Your task to perform on an android device: How much does a3 bedroom apartment rent for in Portland? Image 0: 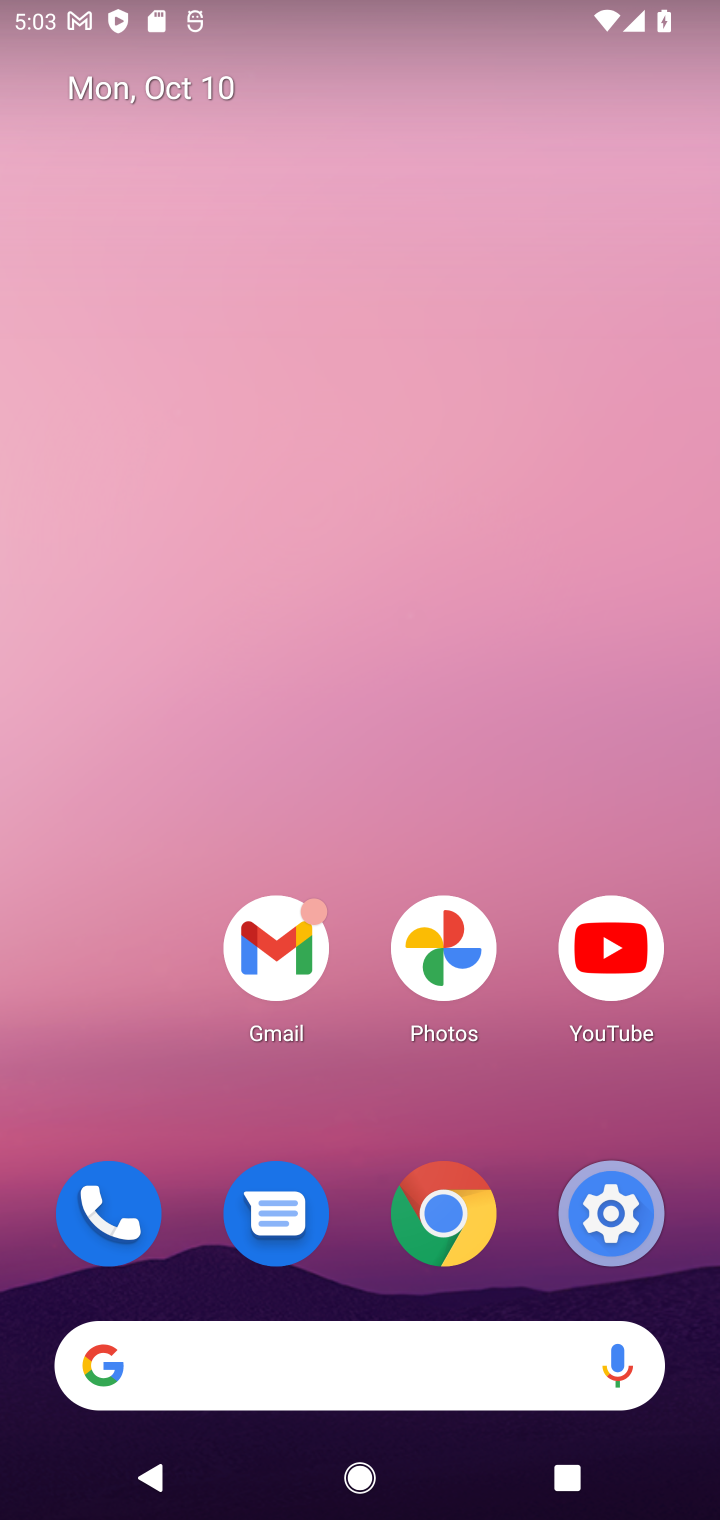
Step 0: drag from (291, 1049) to (488, 8)
Your task to perform on an android device: How much does a3 bedroom apartment rent for in Portland? Image 1: 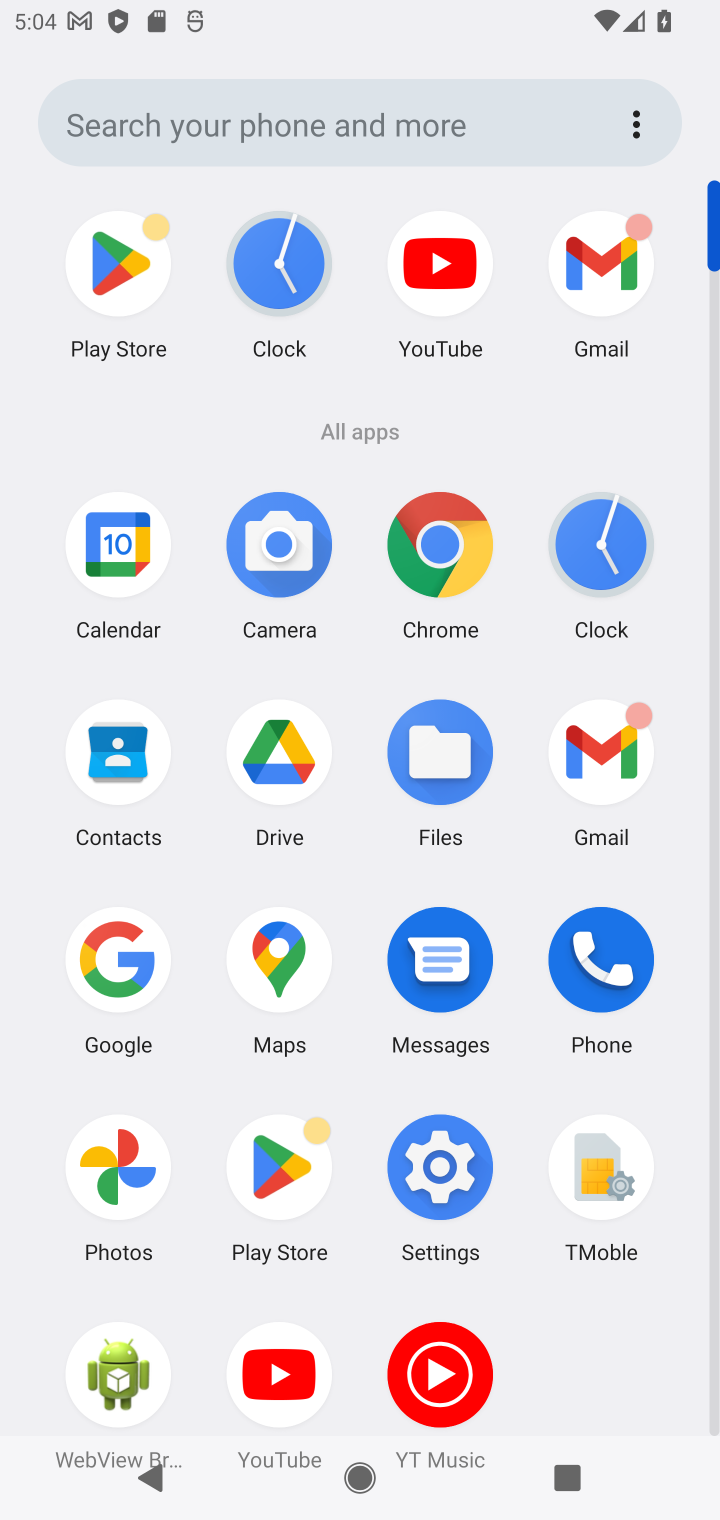
Step 1: click (101, 956)
Your task to perform on an android device: How much does a3 bedroom apartment rent for in Portland? Image 2: 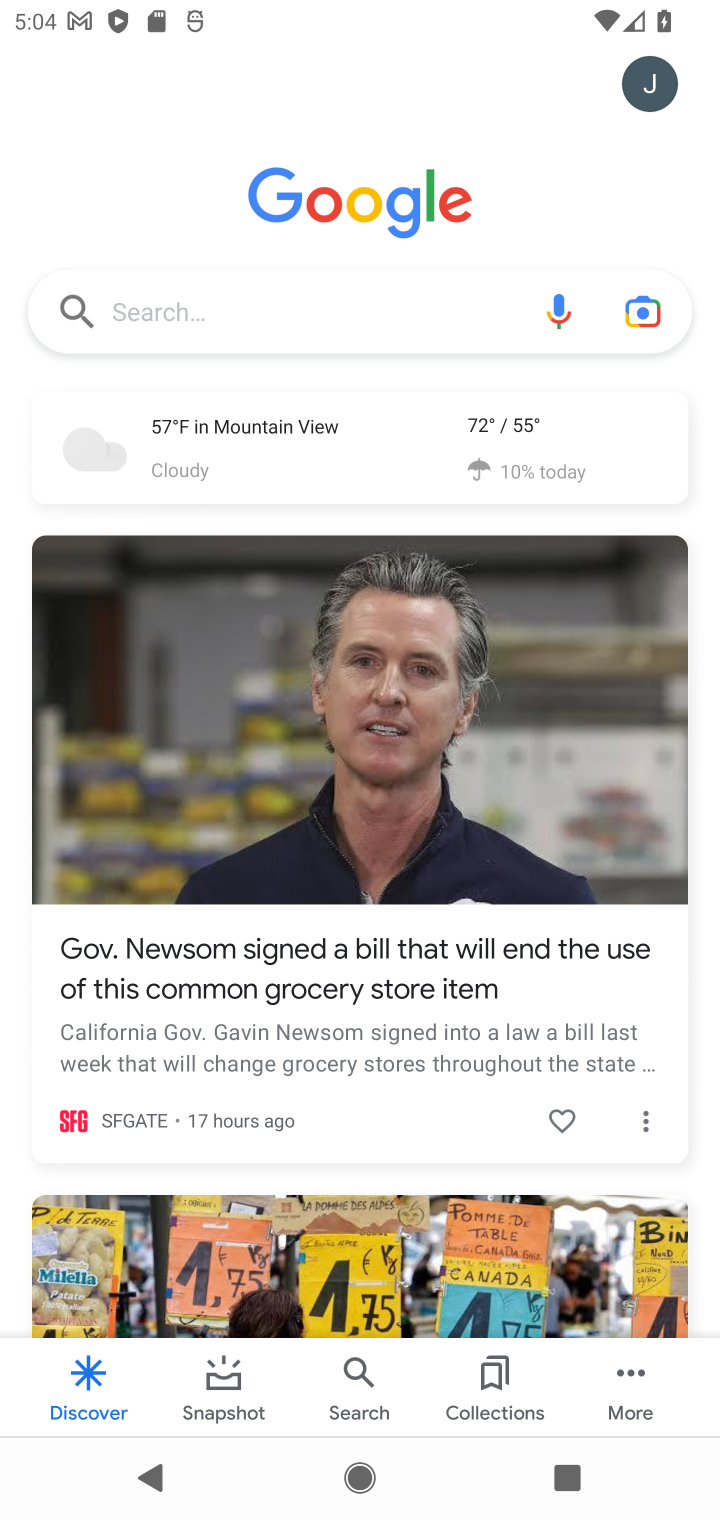
Step 2: click (303, 270)
Your task to perform on an android device: How much does a3 bedroom apartment rent for in Portland? Image 3: 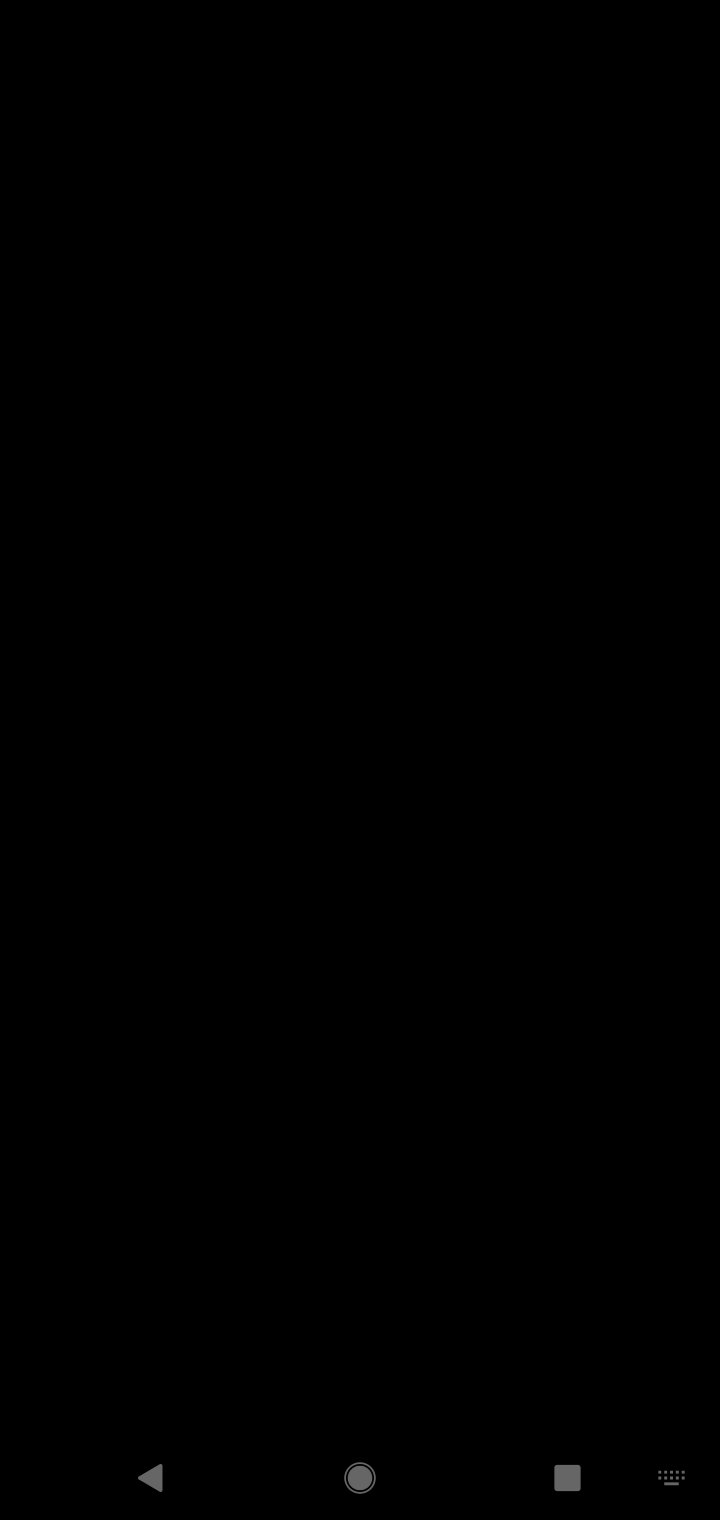
Step 3: type "How much does a3 bedroom apartment rent for in Portland?"
Your task to perform on an android device: How much does a3 bedroom apartment rent for in Portland? Image 4: 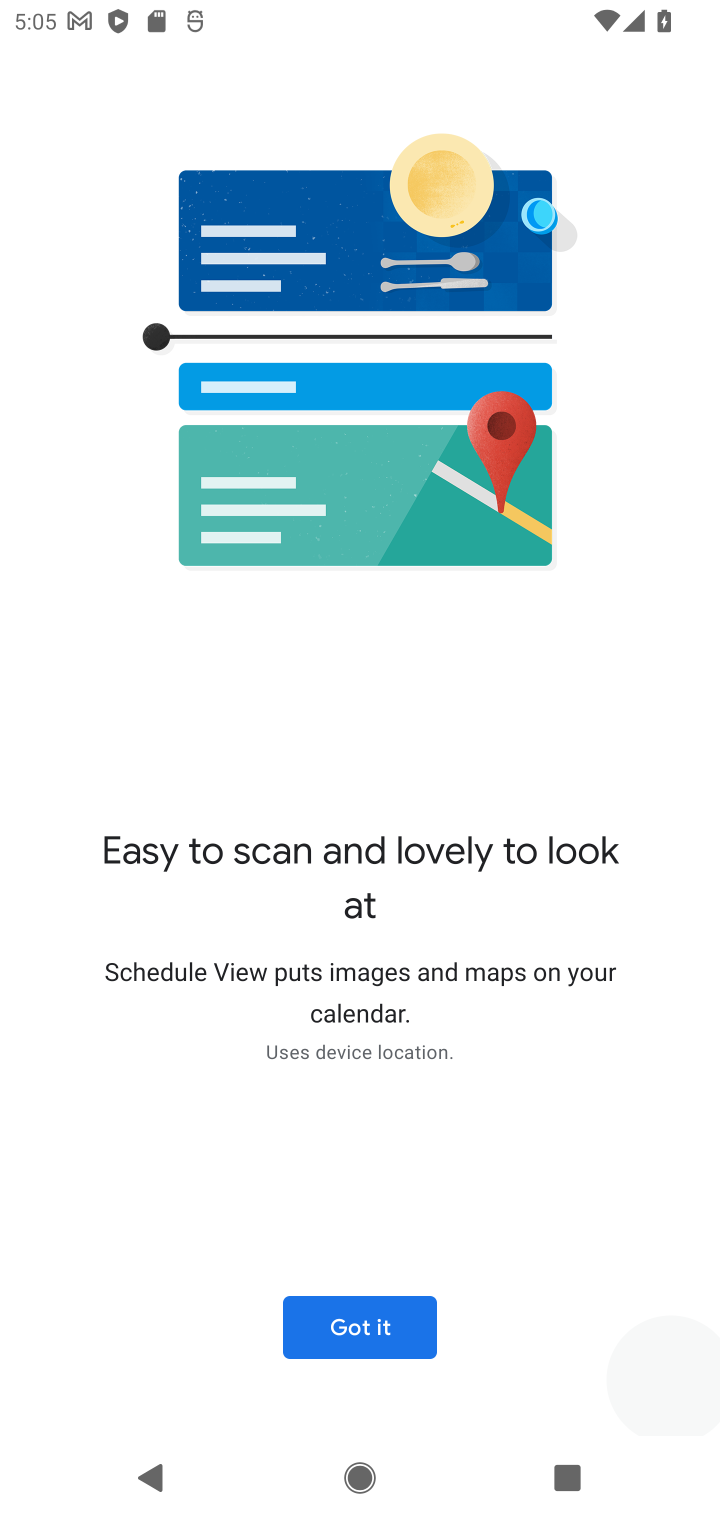
Step 4: click (302, 1380)
Your task to perform on an android device: How much does a3 bedroom apartment rent for in Portland? Image 5: 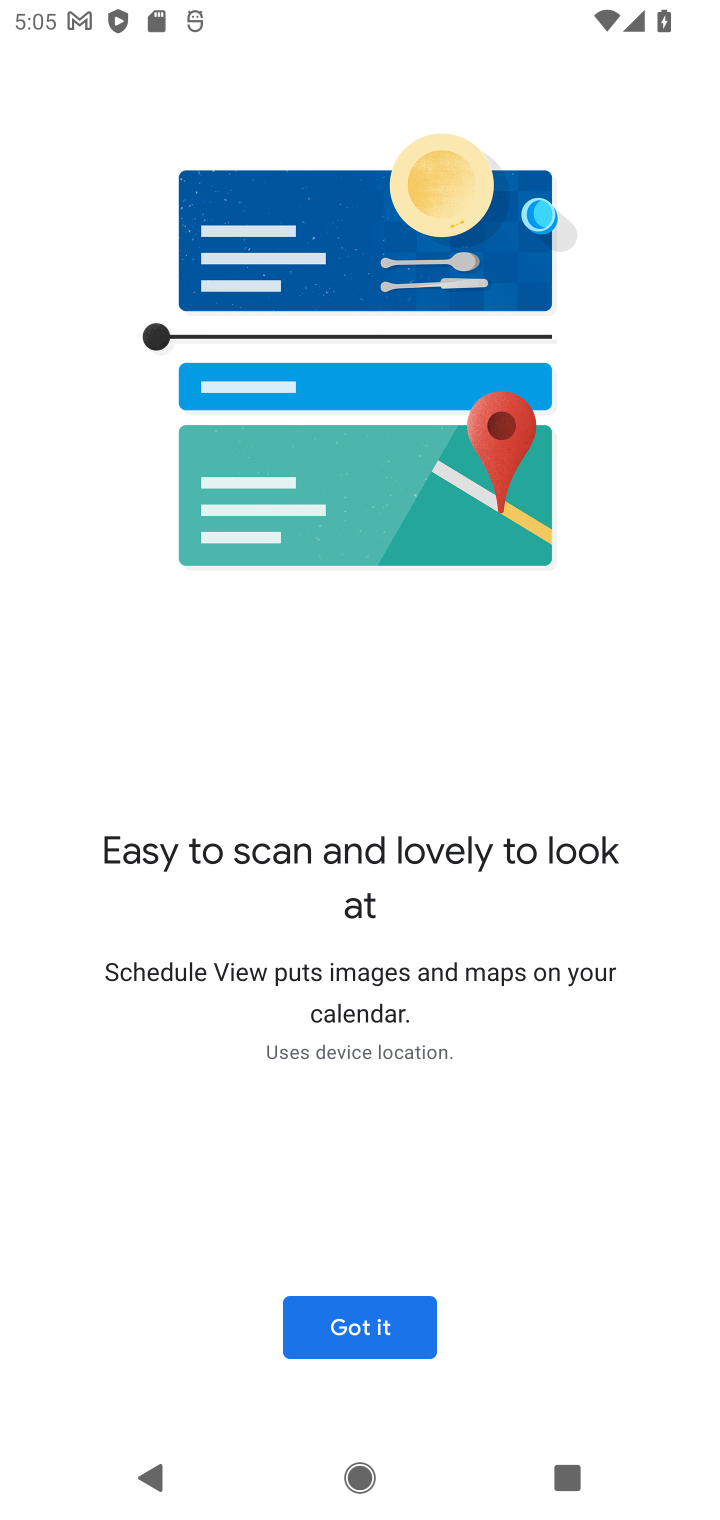
Step 5: click (380, 1309)
Your task to perform on an android device: How much does a3 bedroom apartment rent for in Portland? Image 6: 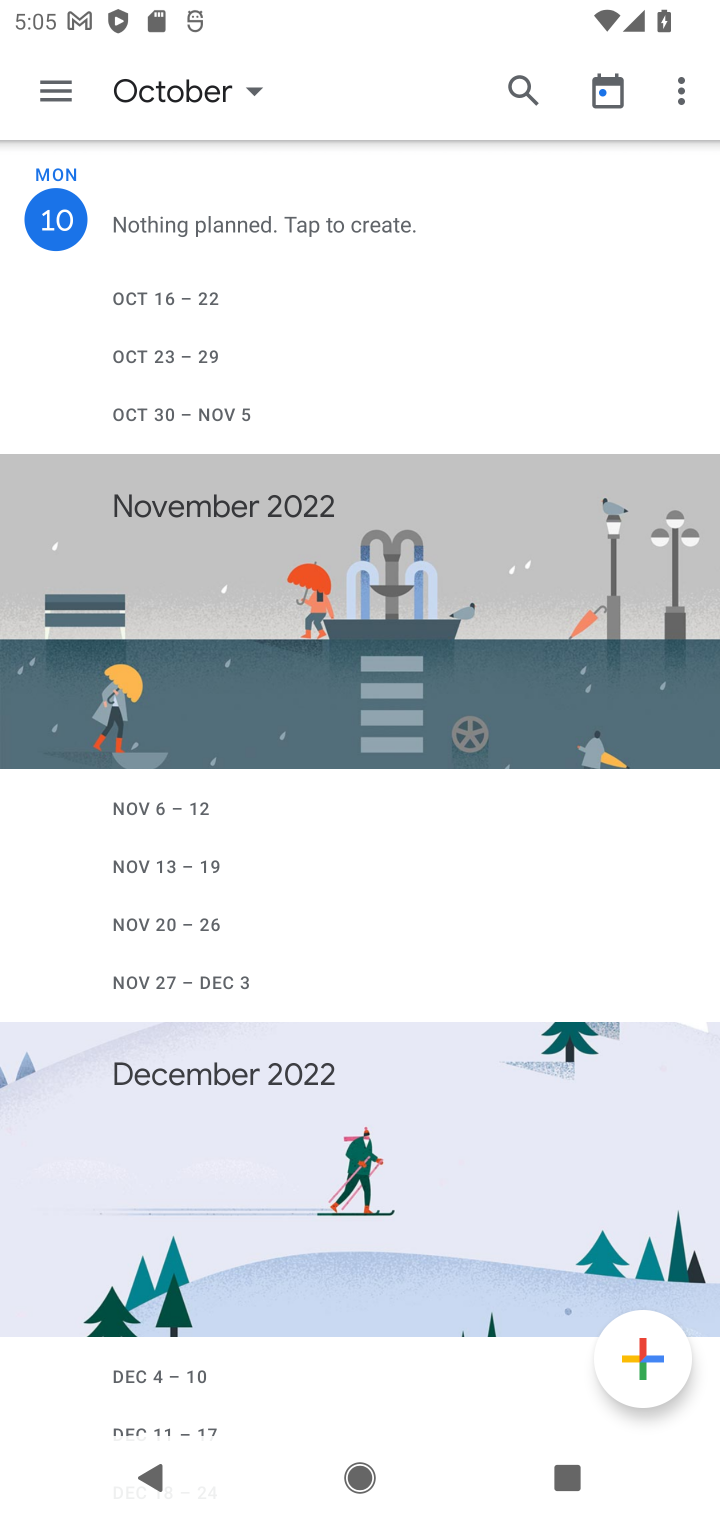
Step 6: press home button
Your task to perform on an android device: How much does a3 bedroom apartment rent for in Portland? Image 7: 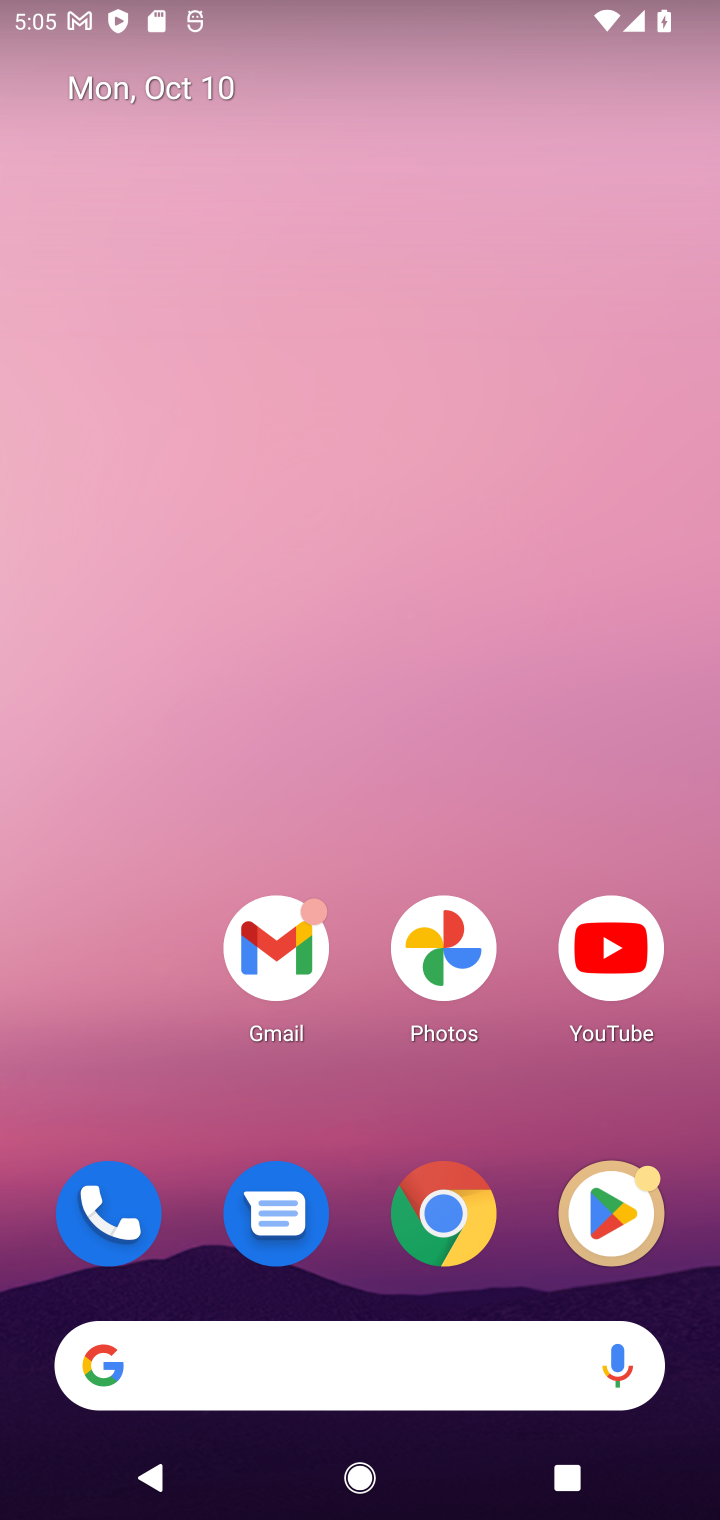
Step 7: click (597, 1243)
Your task to perform on an android device: How much does a3 bedroom apartment rent for in Portland? Image 8: 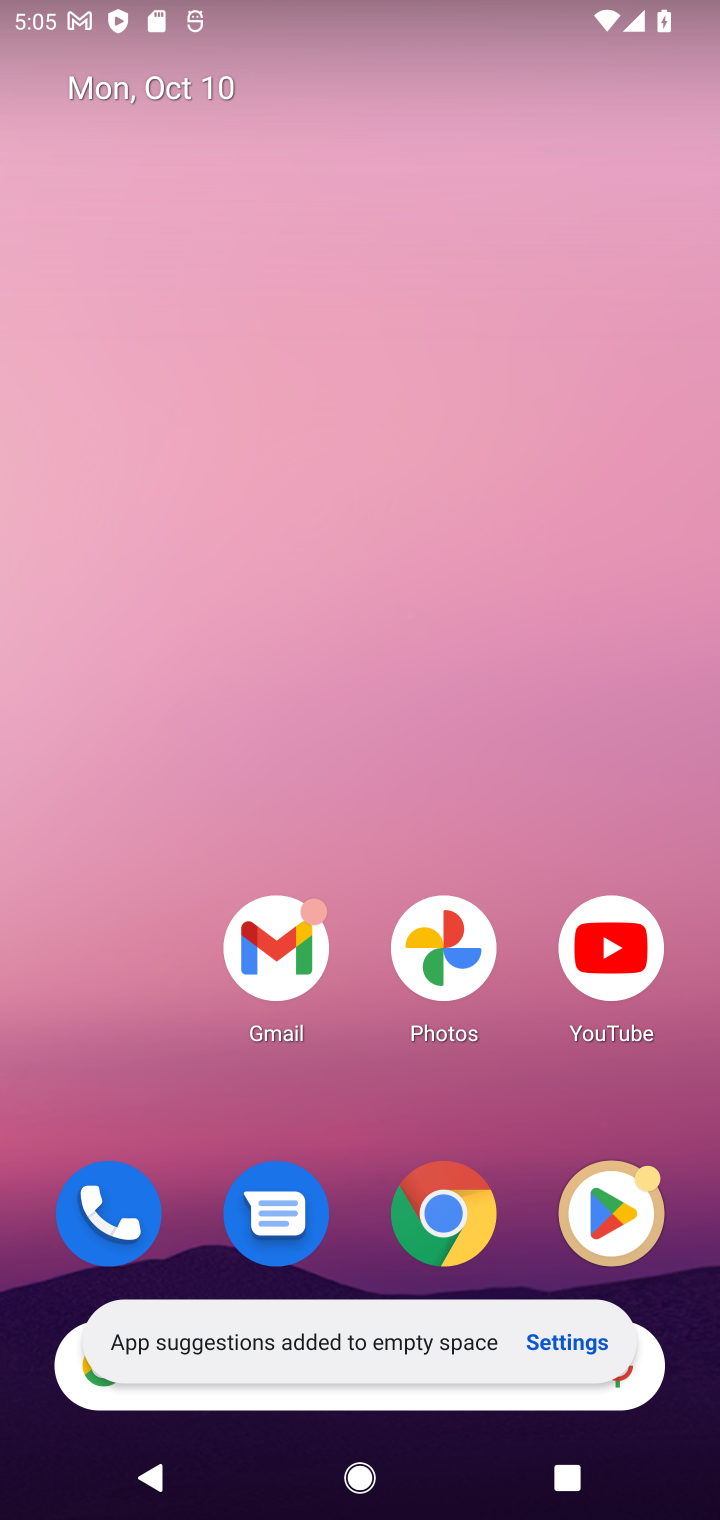
Step 8: click (327, 1390)
Your task to perform on an android device: How much does a3 bedroom apartment rent for in Portland? Image 9: 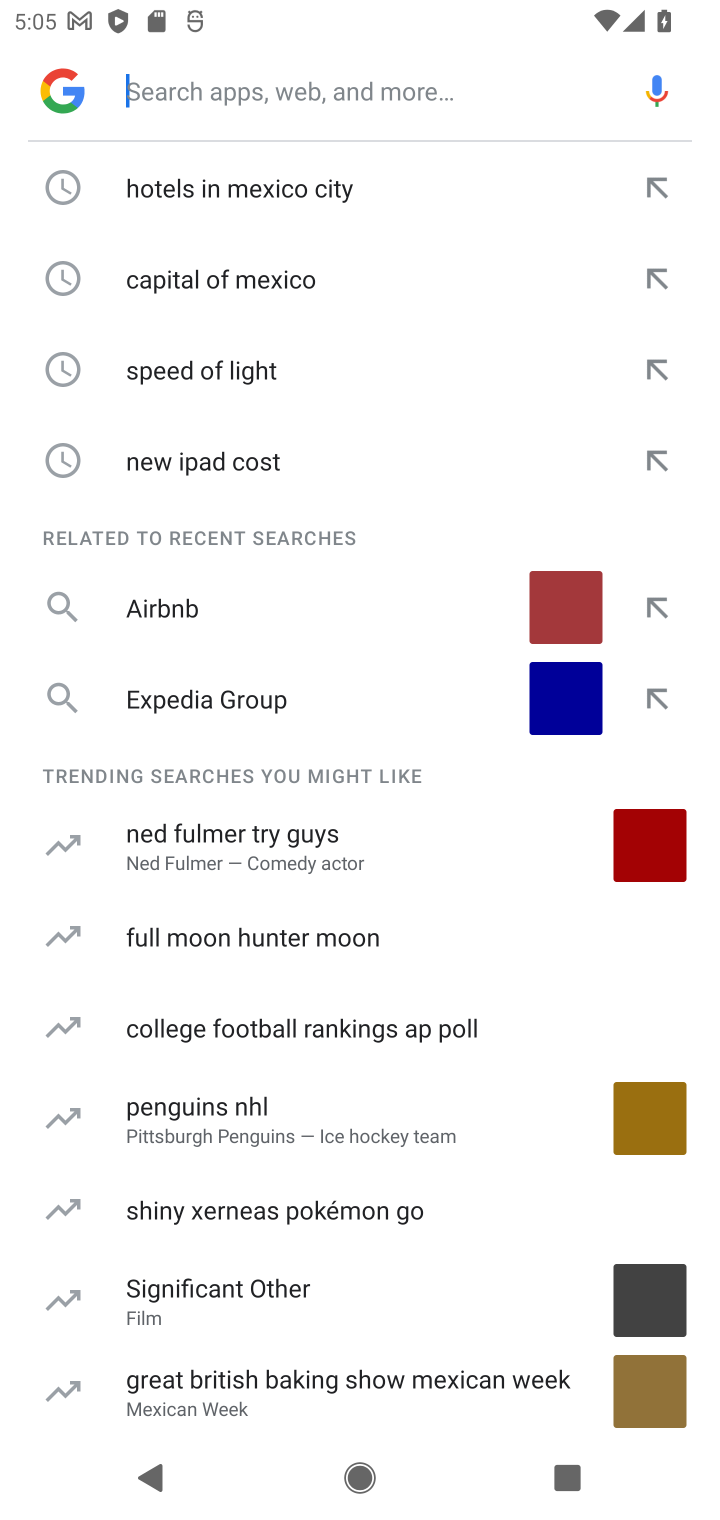
Step 9: click (308, 1366)
Your task to perform on an android device: How much does a3 bedroom apartment rent for in Portland? Image 10: 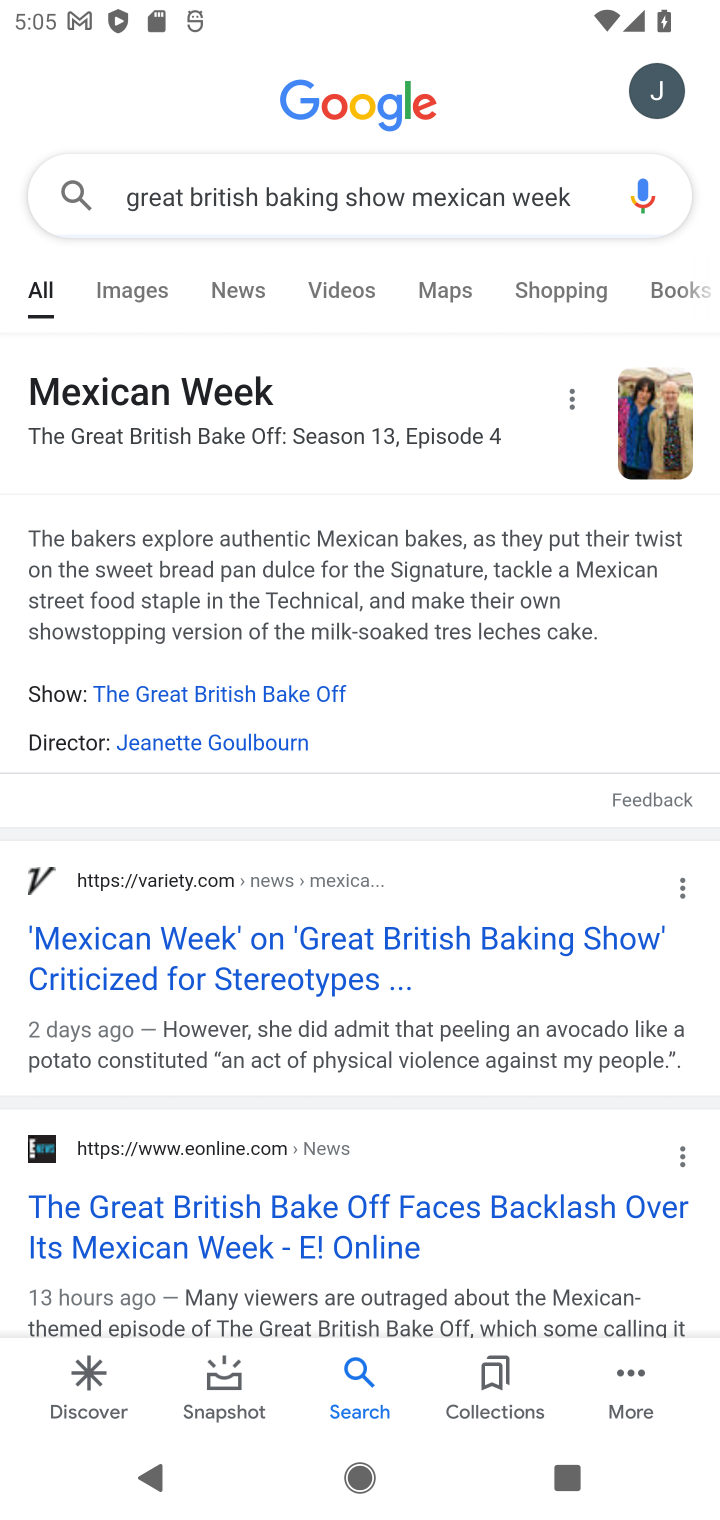
Step 10: click (566, 203)
Your task to perform on an android device: How much does a3 bedroom apartment rent for in Portland? Image 11: 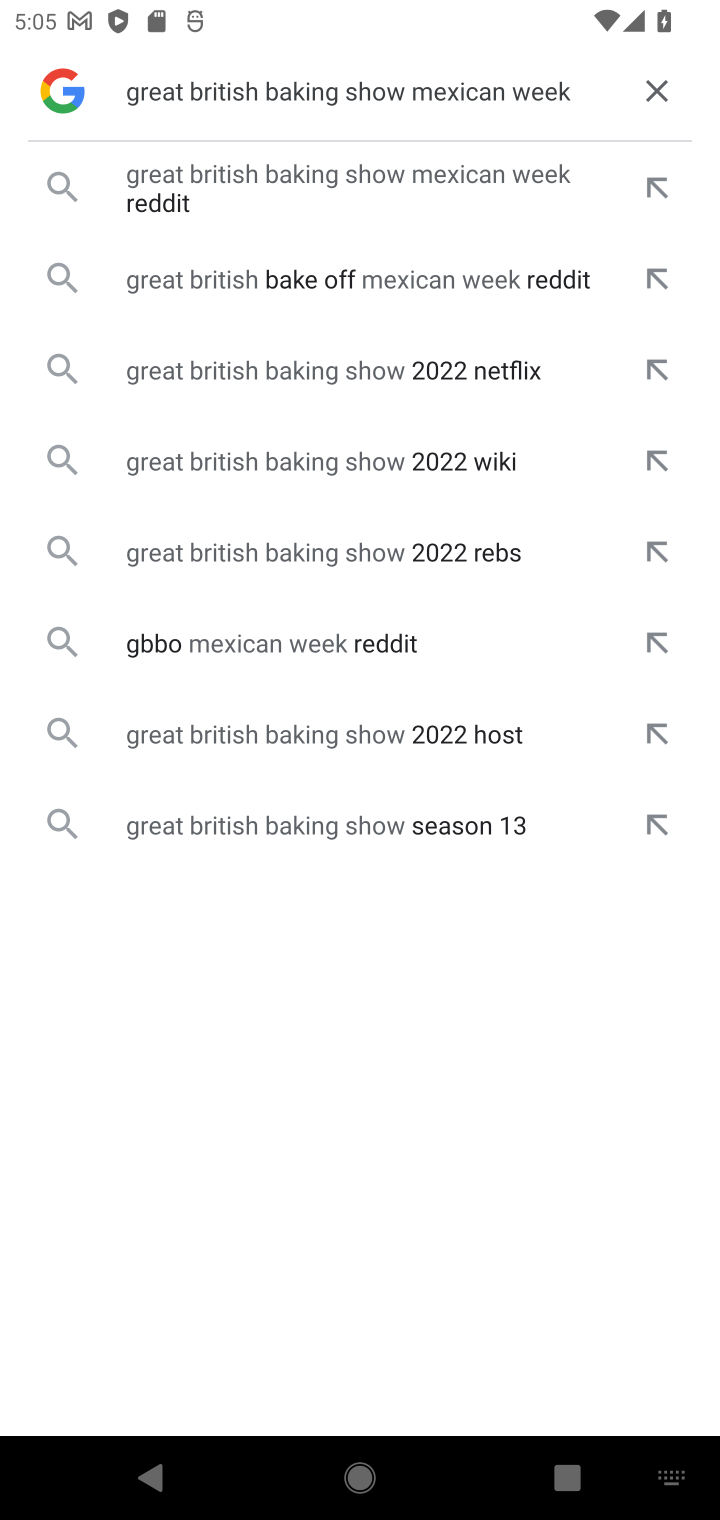
Step 11: click (645, 81)
Your task to perform on an android device: How much does a3 bedroom apartment rent for in Portland? Image 12: 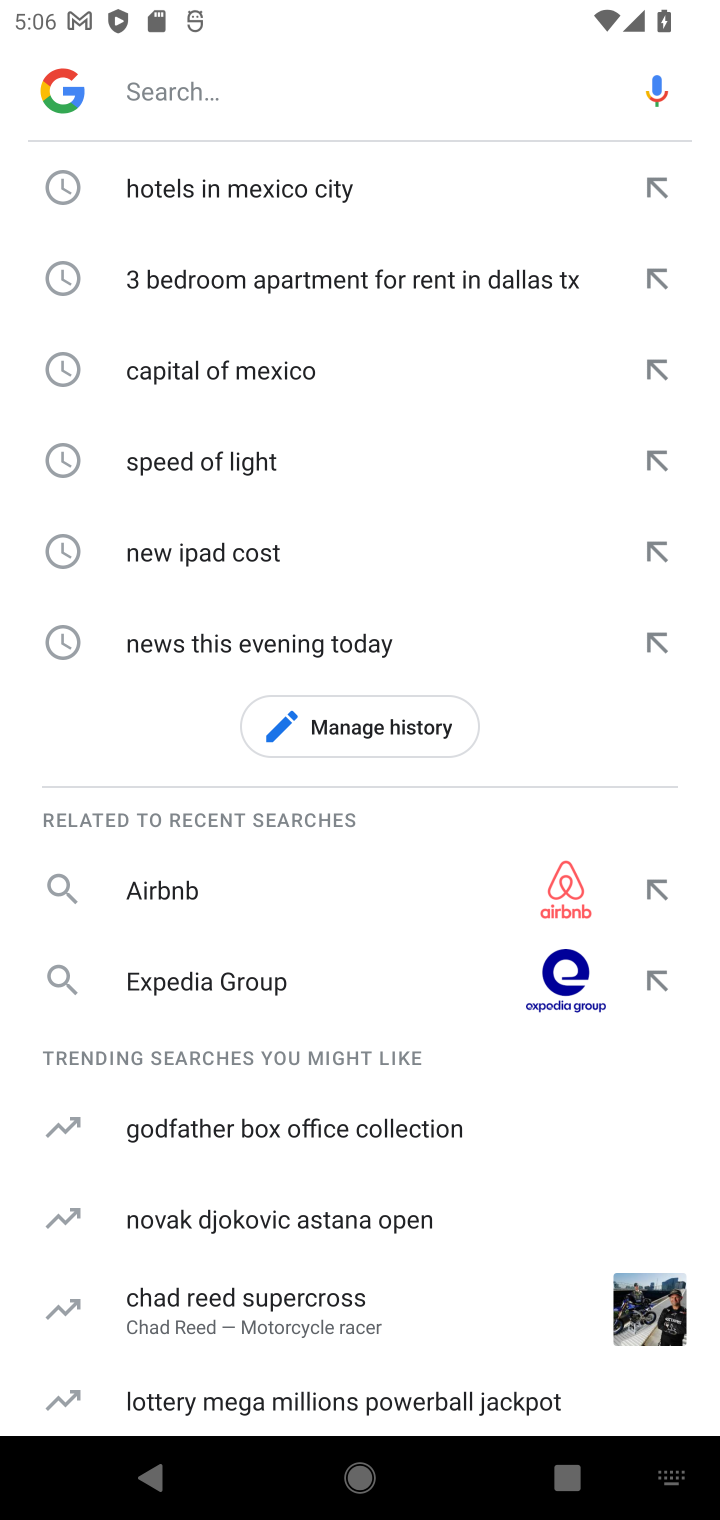
Step 12: click (200, 99)
Your task to perform on an android device: How much does a3 bedroom apartment rent for in Portland? Image 13: 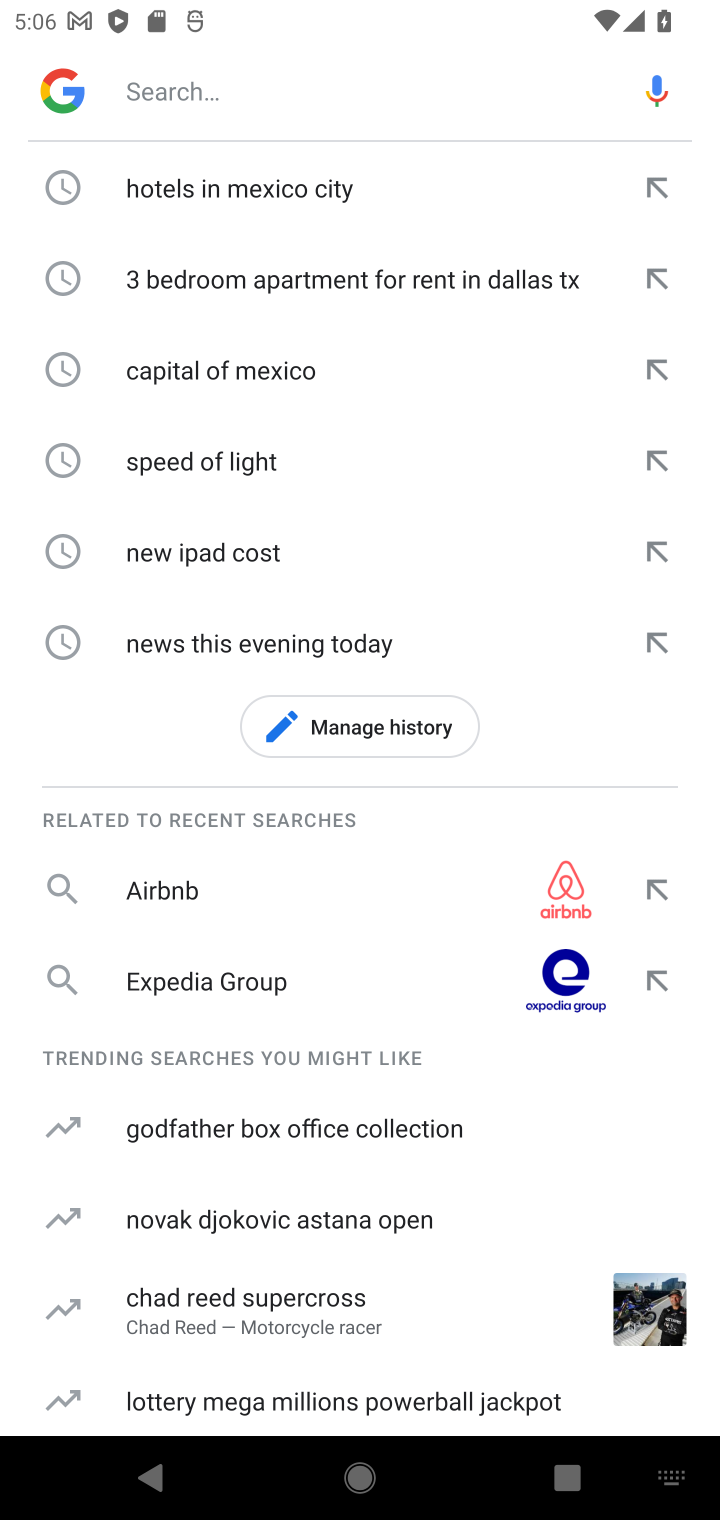
Step 13: type "How much does a3 bedroom apartment rent for in Portland?"
Your task to perform on an android device: How much does a3 bedroom apartment rent for in Portland? Image 14: 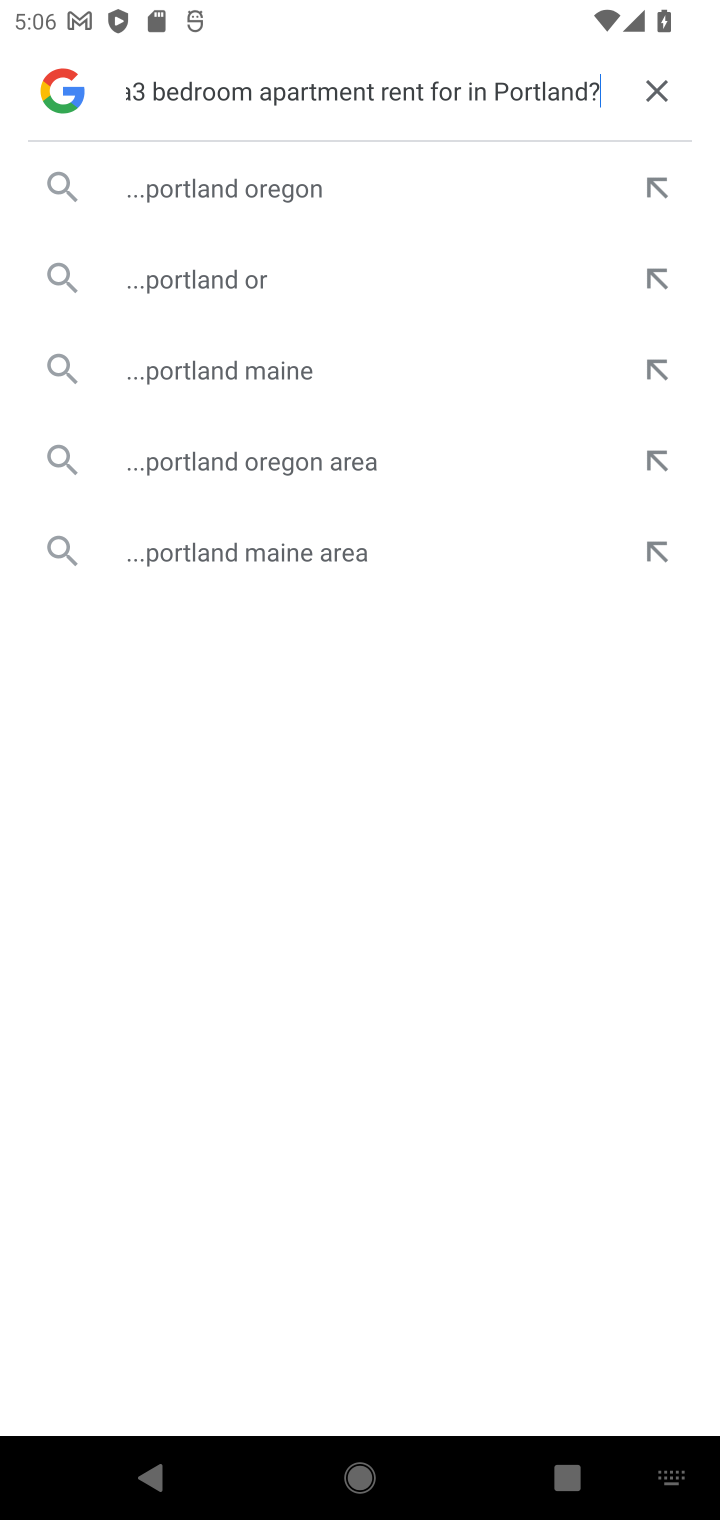
Step 14: click (274, 191)
Your task to perform on an android device: How much does a3 bedroom apartment rent for in Portland? Image 15: 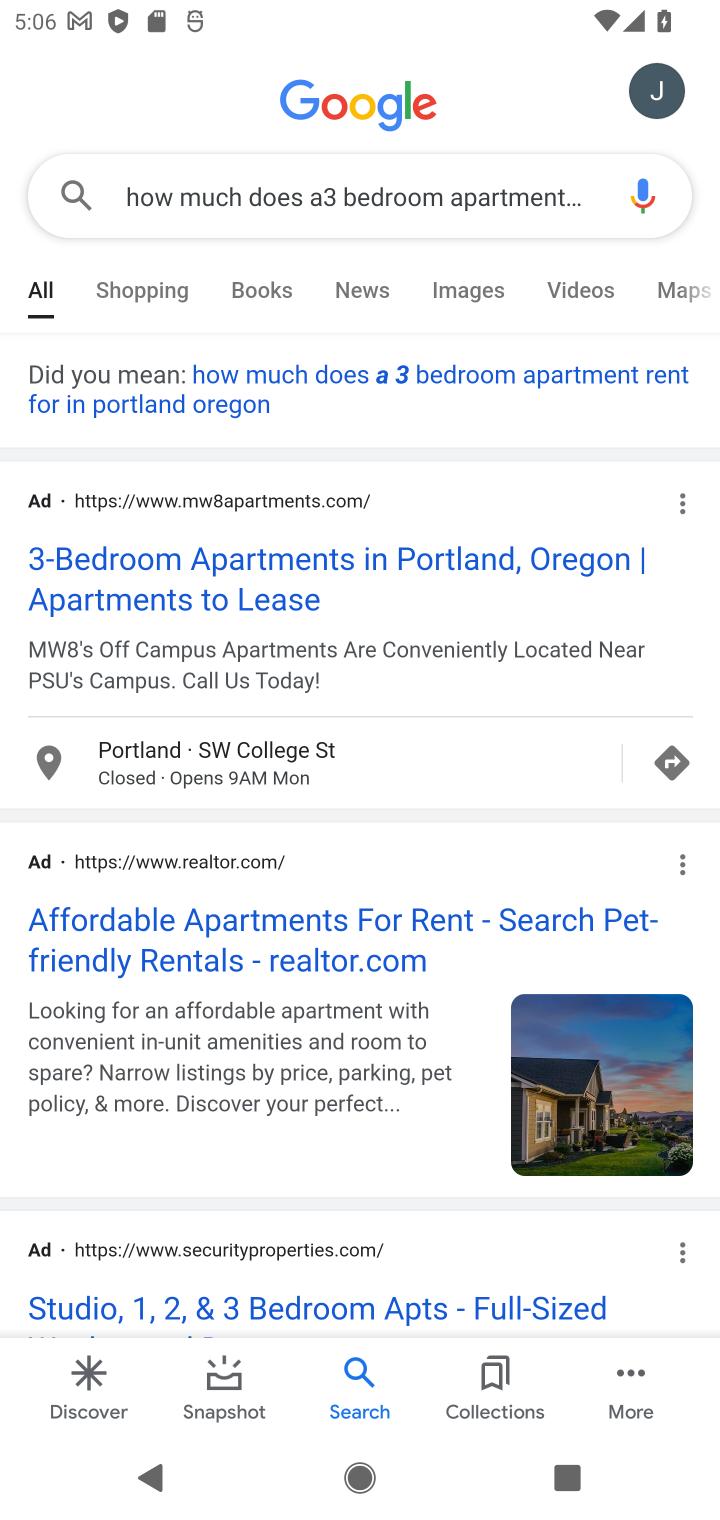
Step 15: task complete